Your task to perform on an android device: turn on sleep mode Image 0: 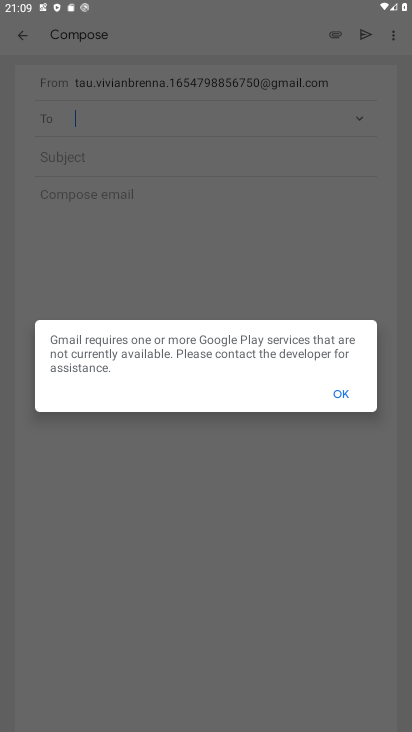
Step 0: press home button
Your task to perform on an android device: turn on sleep mode Image 1: 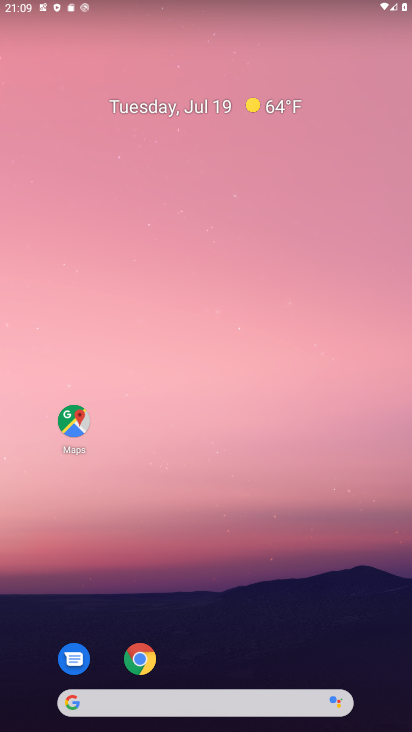
Step 1: drag from (254, 674) to (269, 128)
Your task to perform on an android device: turn on sleep mode Image 2: 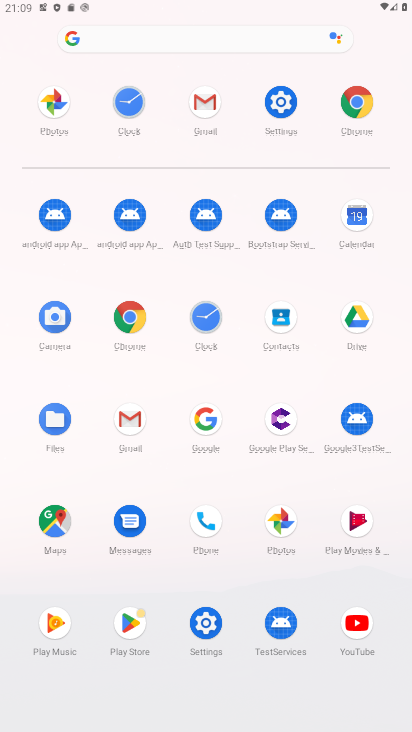
Step 2: click (290, 96)
Your task to perform on an android device: turn on sleep mode Image 3: 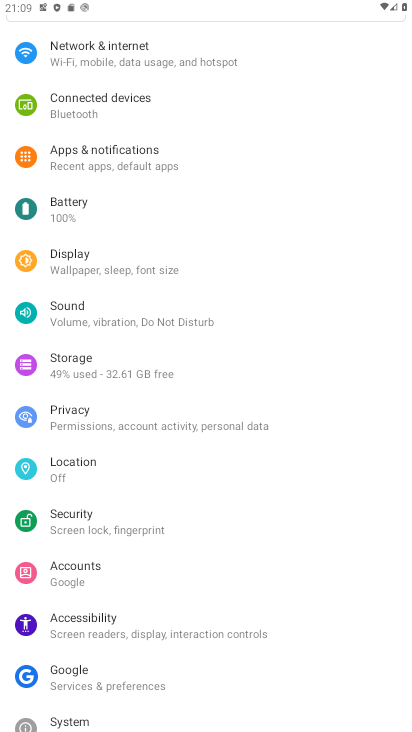
Step 3: task complete